Your task to perform on an android device: Open the Play Movies app and select the watchlist tab. Image 0: 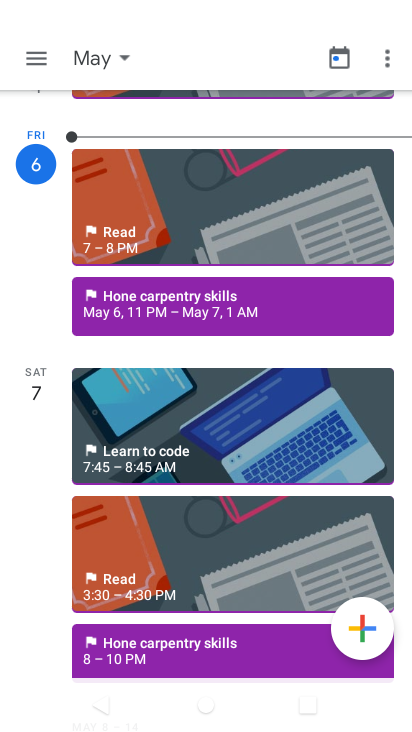
Step 0: drag from (243, 594) to (248, 470)
Your task to perform on an android device: Open the Play Movies app and select the watchlist tab. Image 1: 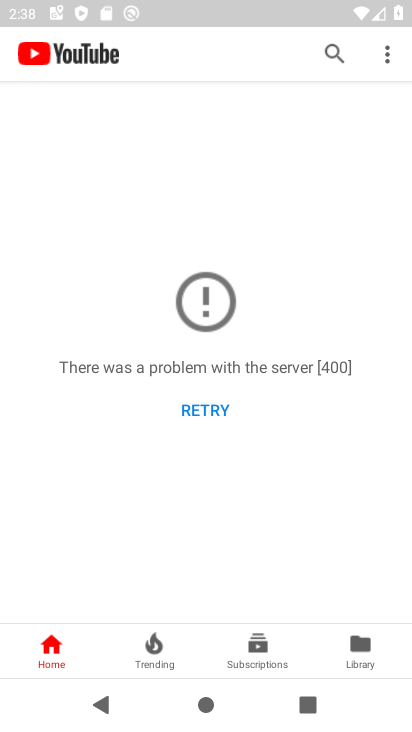
Step 1: press home button
Your task to perform on an android device: Open the Play Movies app and select the watchlist tab. Image 2: 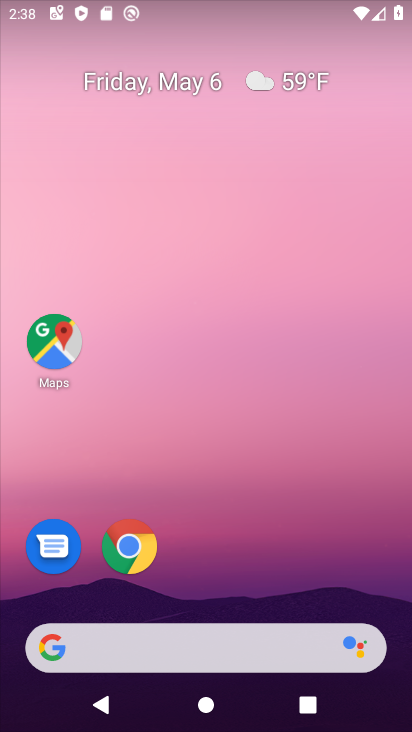
Step 2: drag from (256, 598) to (259, 148)
Your task to perform on an android device: Open the Play Movies app and select the watchlist tab. Image 3: 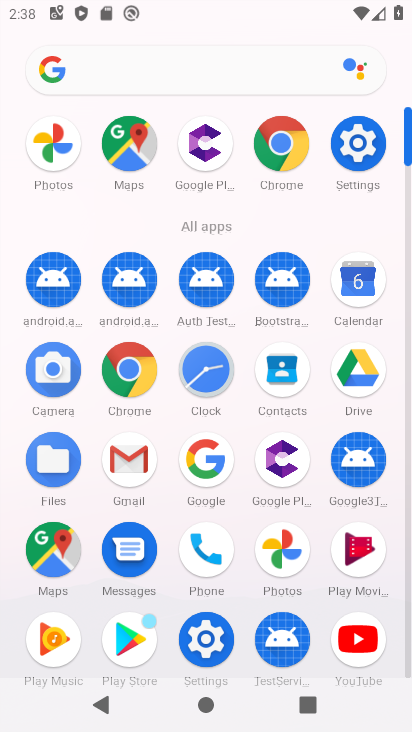
Step 3: click (355, 554)
Your task to perform on an android device: Open the Play Movies app and select the watchlist tab. Image 4: 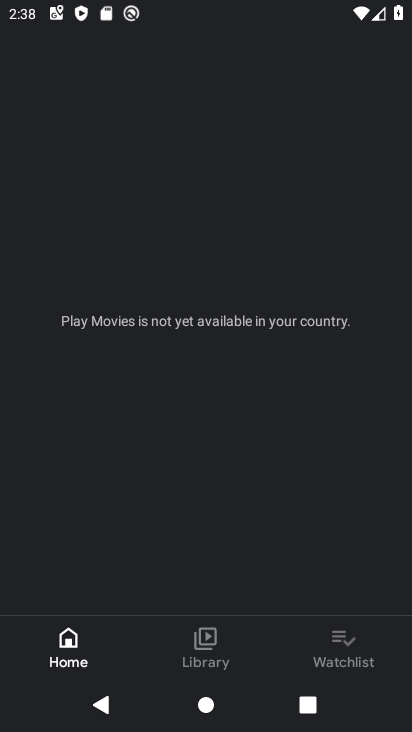
Step 4: click (346, 641)
Your task to perform on an android device: Open the Play Movies app and select the watchlist tab. Image 5: 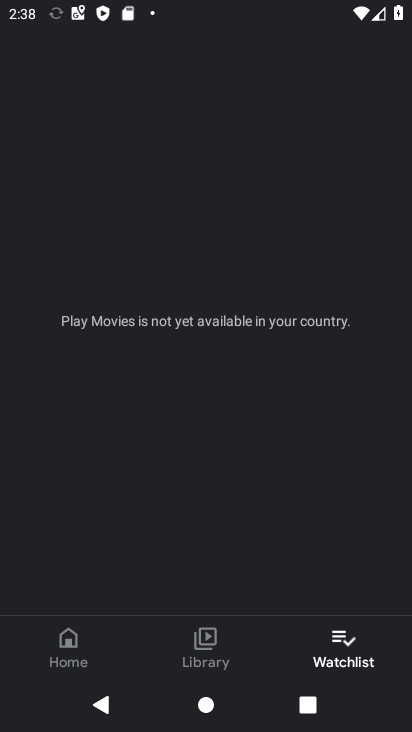
Step 5: task complete